Your task to perform on an android device: open wifi settings Image 0: 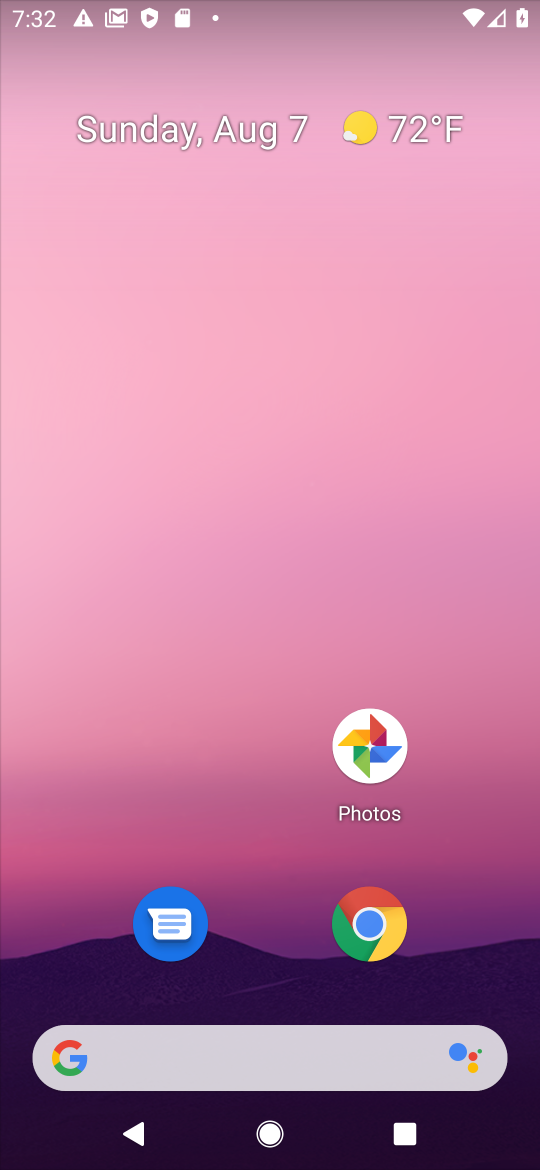
Step 0: drag from (290, 901) to (181, 222)
Your task to perform on an android device: open wifi settings Image 1: 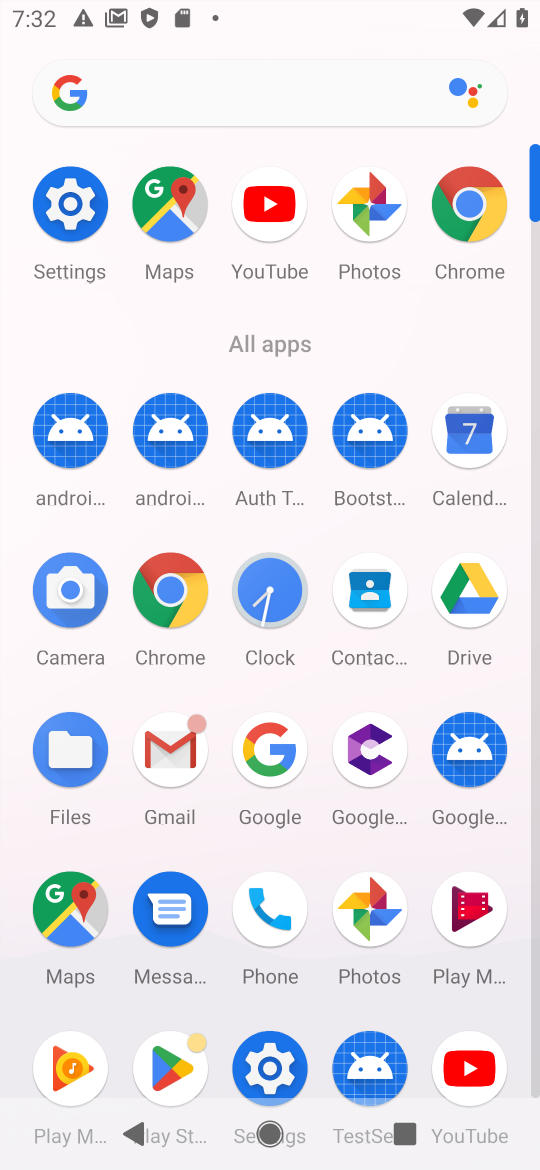
Step 1: click (64, 224)
Your task to perform on an android device: open wifi settings Image 2: 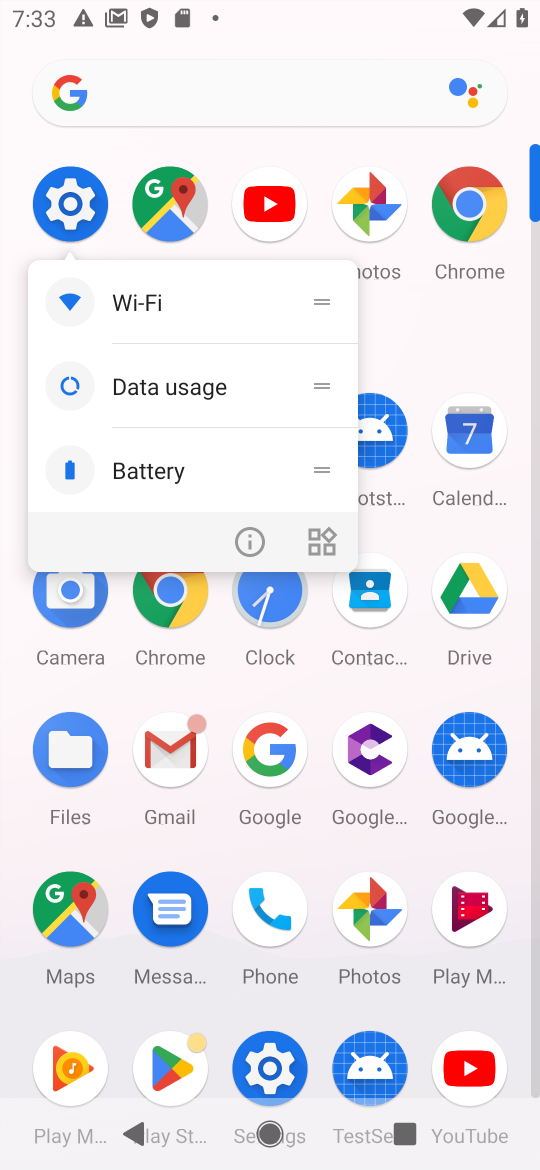
Step 2: click (57, 212)
Your task to perform on an android device: open wifi settings Image 3: 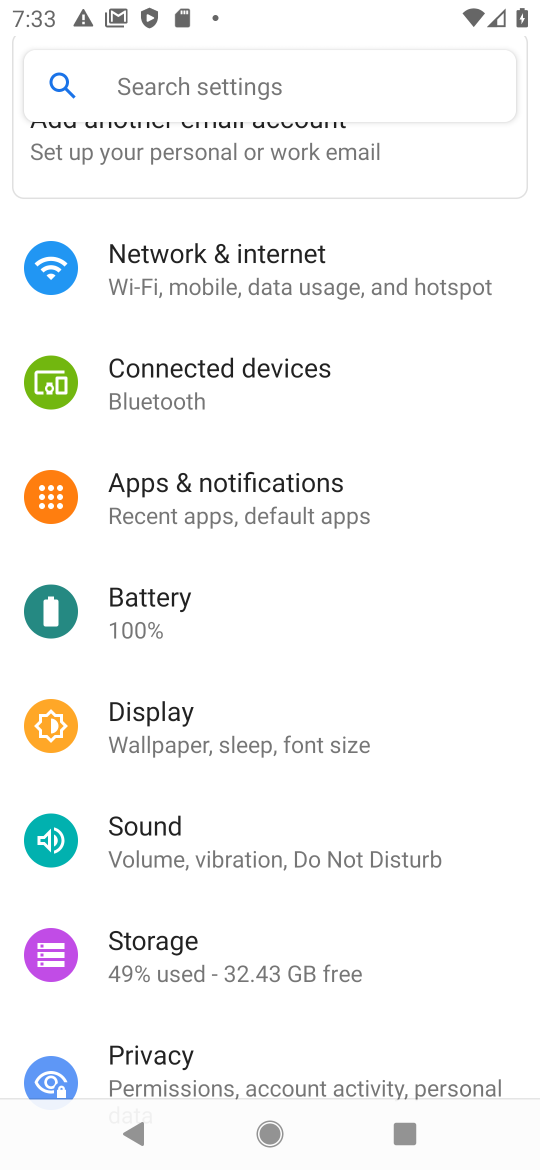
Step 3: click (218, 276)
Your task to perform on an android device: open wifi settings Image 4: 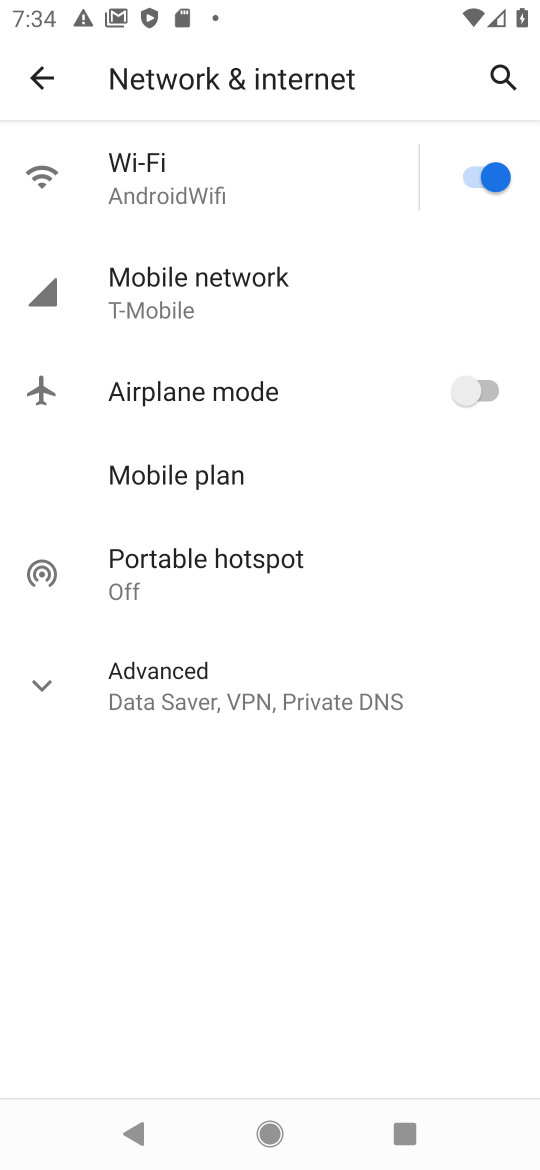
Step 4: task complete